Your task to perform on an android device: open app "Grab" Image 0: 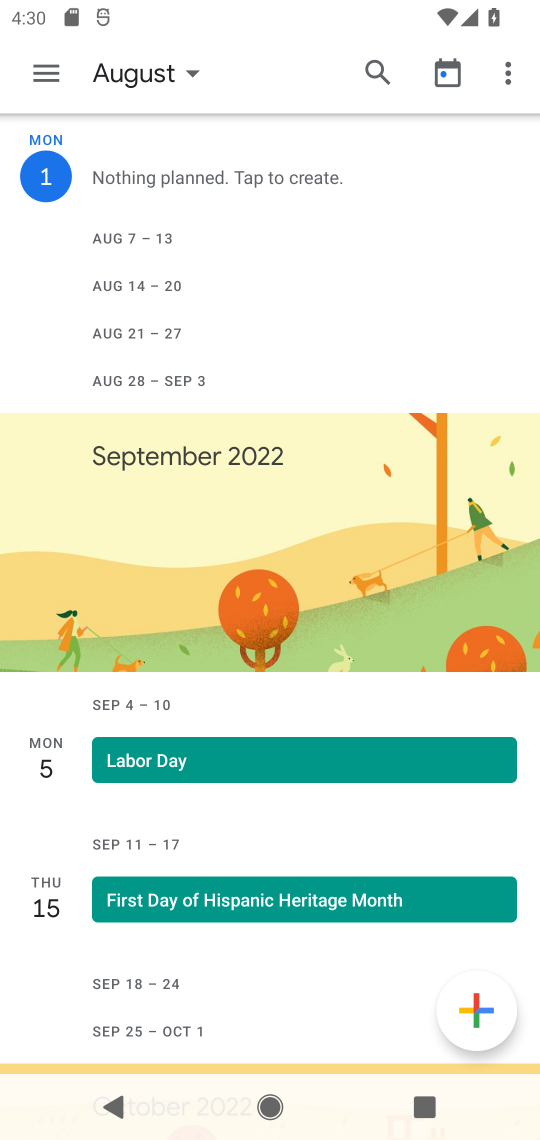
Step 0: press home button
Your task to perform on an android device: open app "Grab" Image 1: 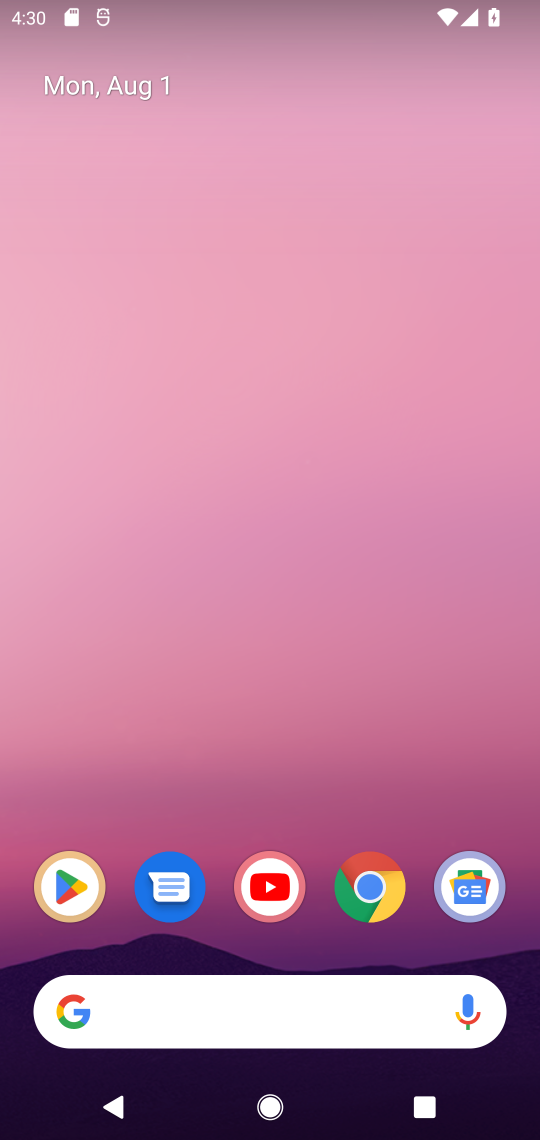
Step 1: click (47, 903)
Your task to perform on an android device: open app "Grab" Image 2: 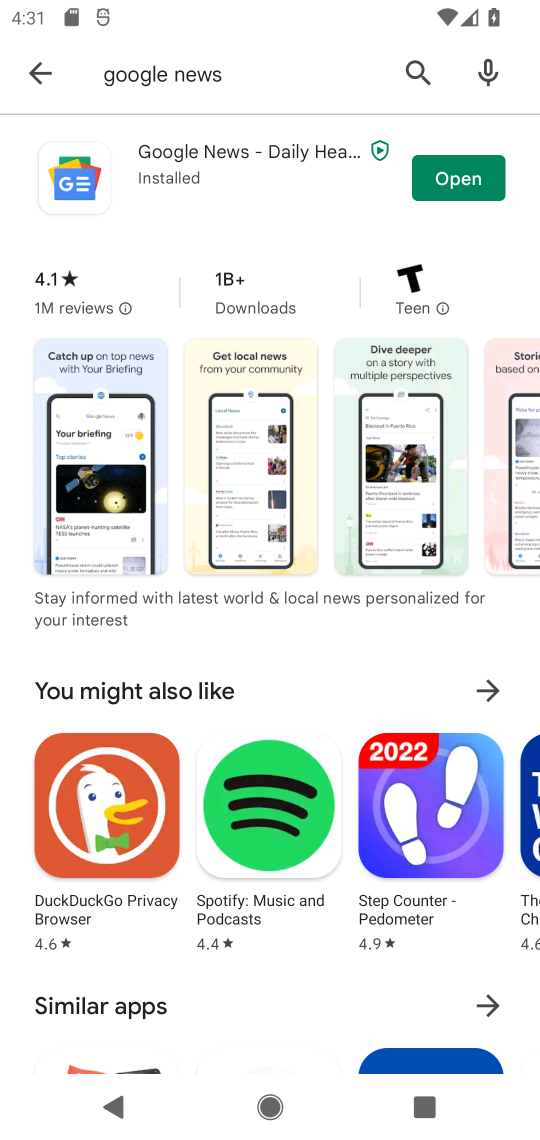
Step 2: click (49, 91)
Your task to perform on an android device: open app "Grab" Image 3: 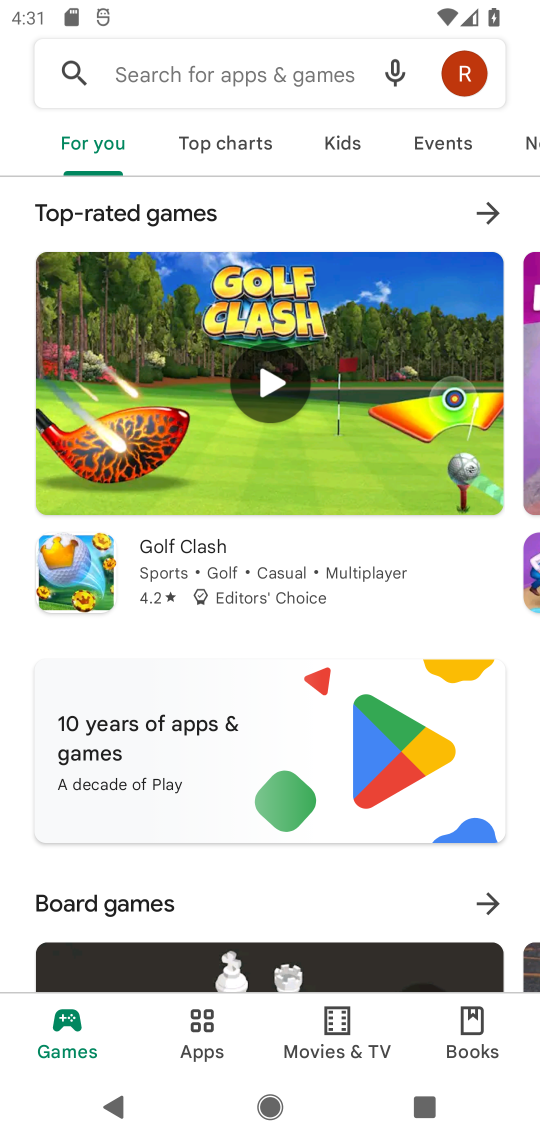
Step 3: click (152, 71)
Your task to perform on an android device: open app "Grab" Image 4: 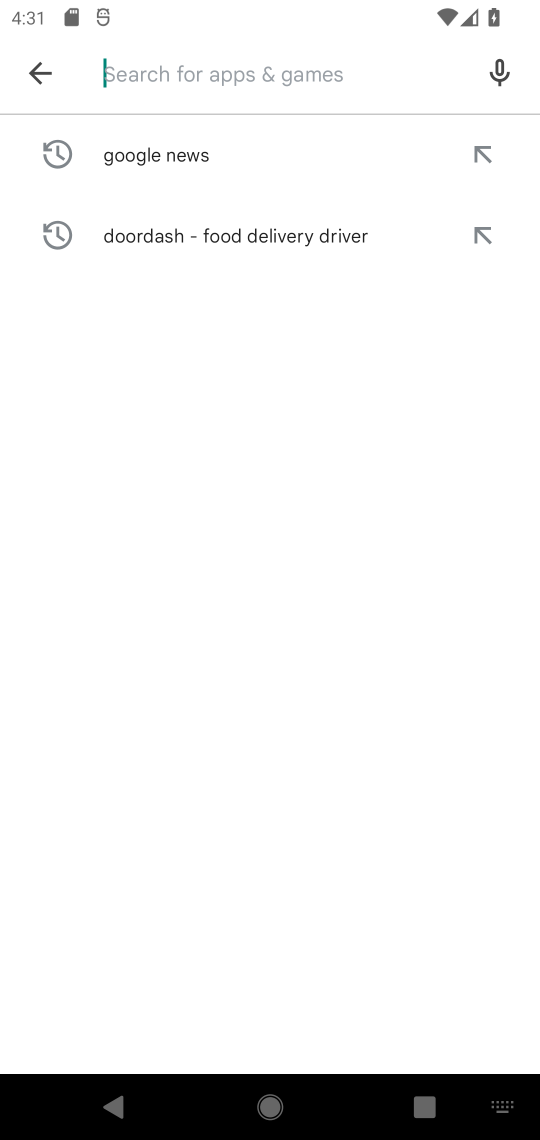
Step 4: type "Grab"
Your task to perform on an android device: open app "Grab" Image 5: 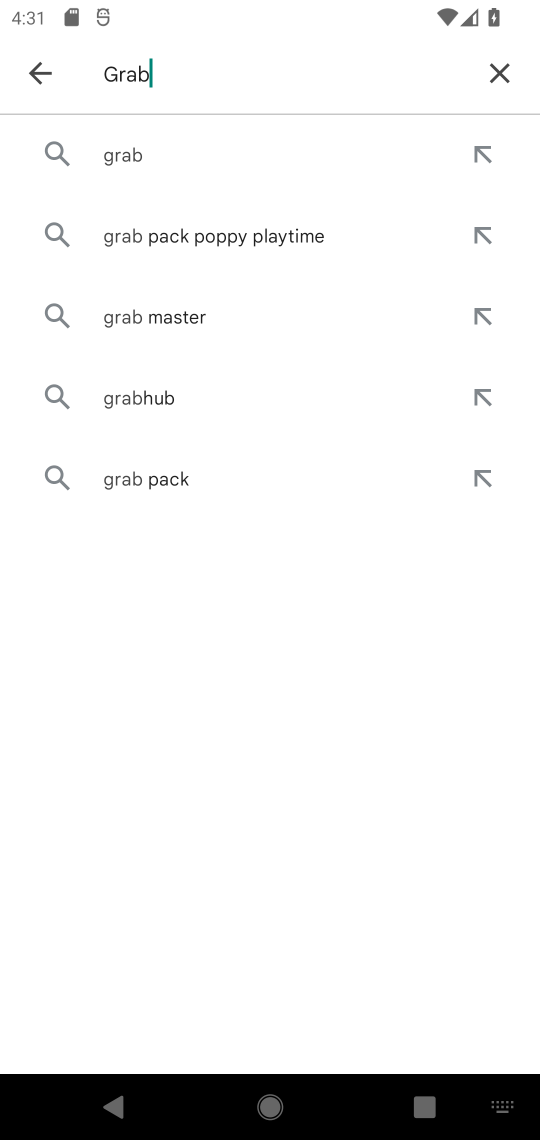
Step 5: click (193, 149)
Your task to perform on an android device: open app "Grab" Image 6: 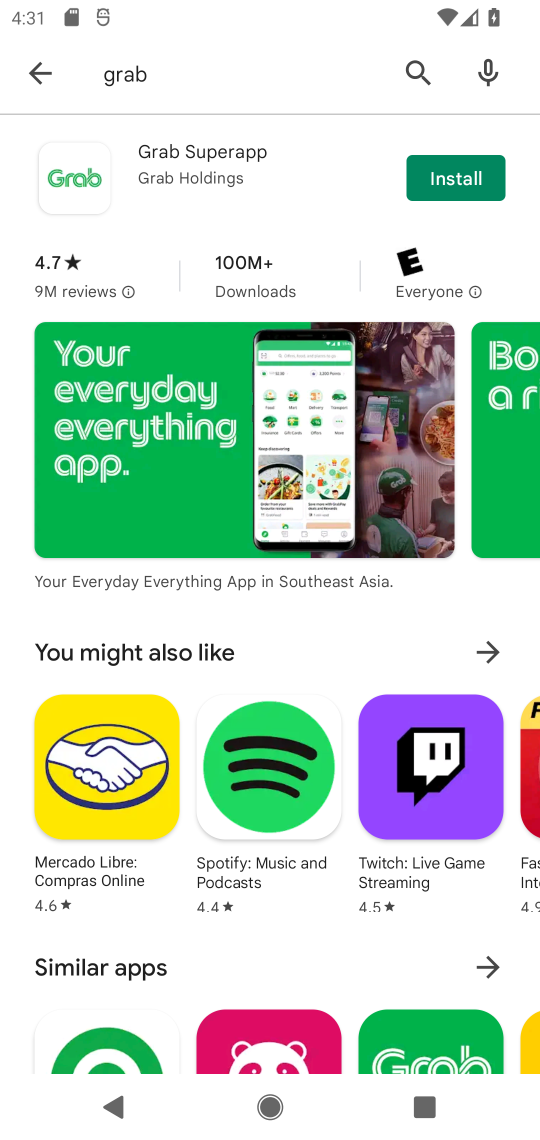
Step 6: click (422, 173)
Your task to perform on an android device: open app "Grab" Image 7: 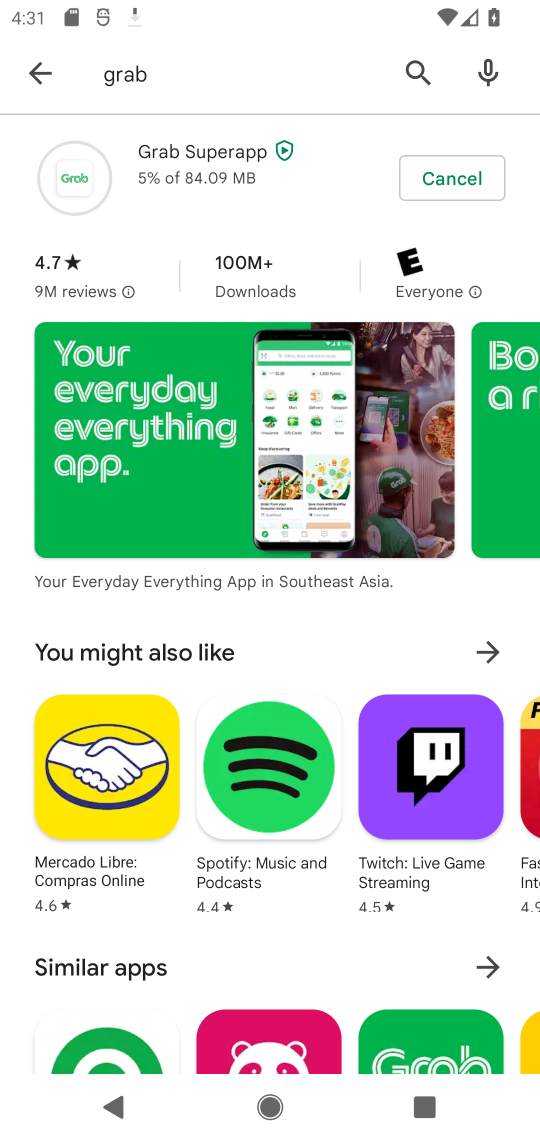
Step 7: task complete